Your task to perform on an android device: check google app version Image 0: 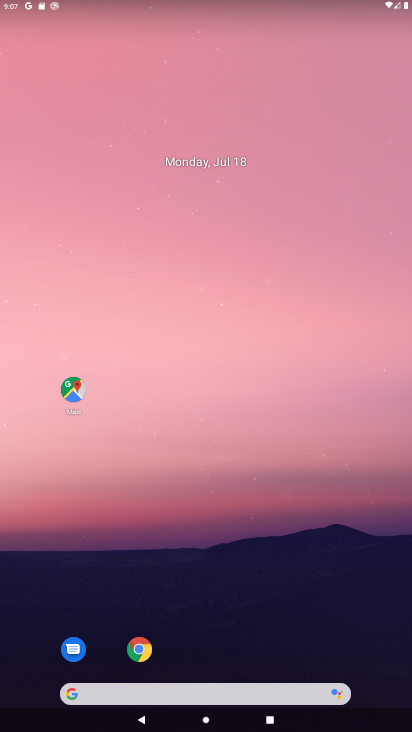
Step 0: click (185, 327)
Your task to perform on an android device: check google app version Image 1: 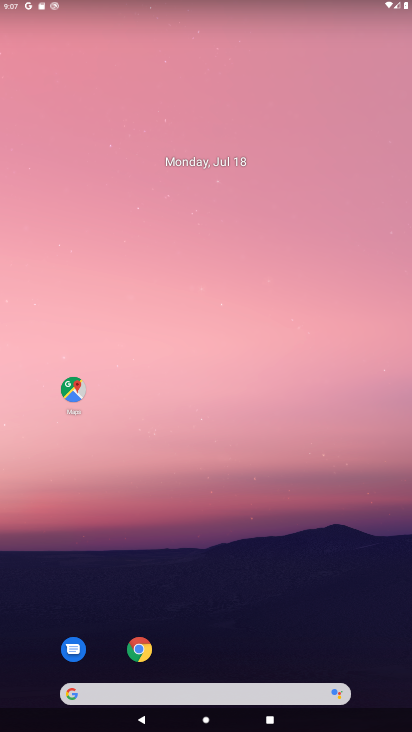
Step 1: drag from (219, 680) to (212, 359)
Your task to perform on an android device: check google app version Image 2: 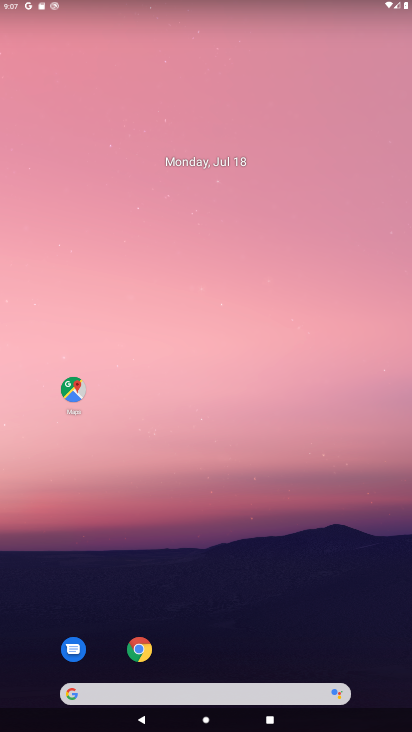
Step 2: drag from (249, 690) to (324, 225)
Your task to perform on an android device: check google app version Image 3: 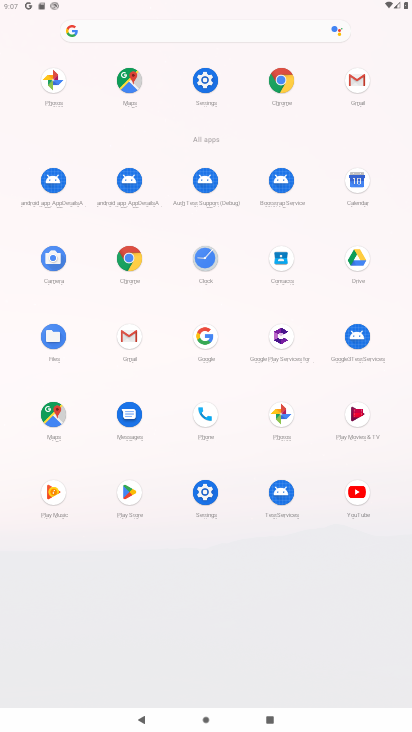
Step 3: click (209, 336)
Your task to perform on an android device: check google app version Image 4: 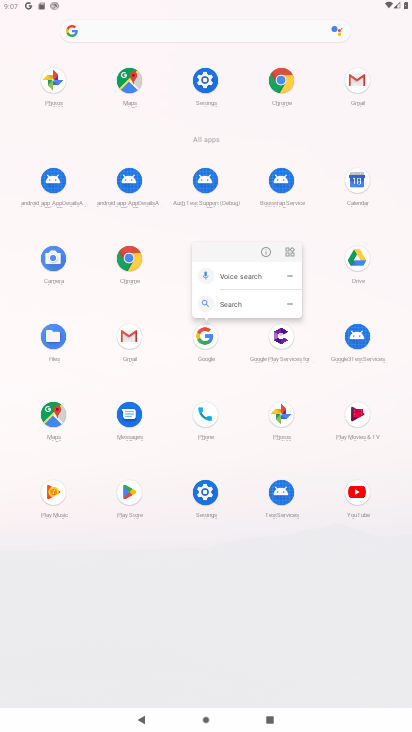
Step 4: click (266, 249)
Your task to perform on an android device: check google app version Image 5: 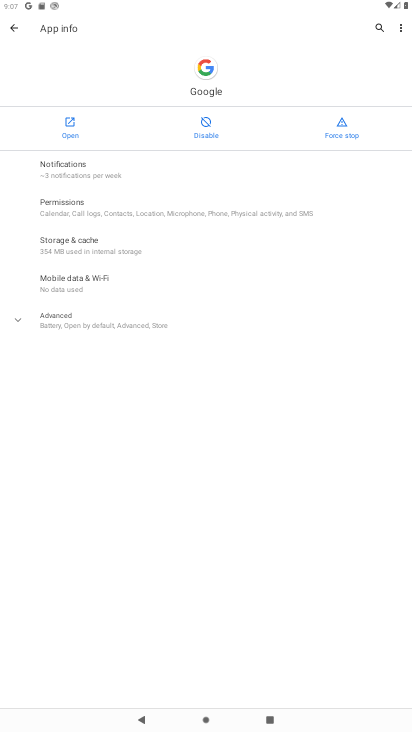
Step 5: click (41, 320)
Your task to perform on an android device: check google app version Image 6: 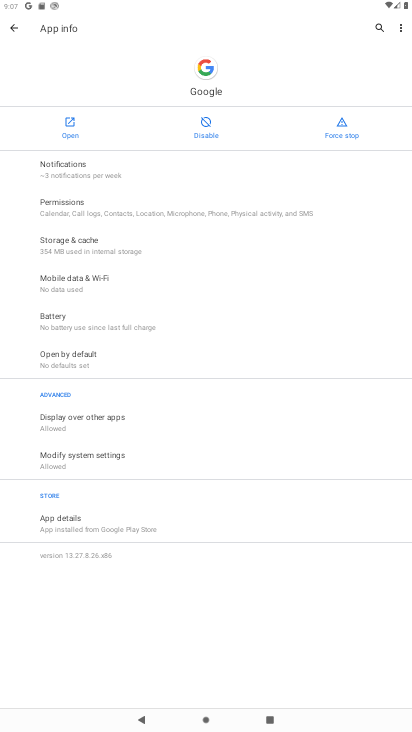
Step 6: task complete